Your task to perform on an android device: check storage Image 0: 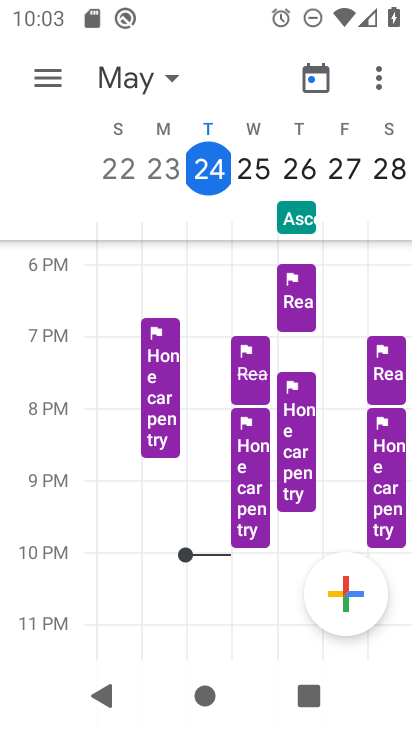
Step 0: press home button
Your task to perform on an android device: check storage Image 1: 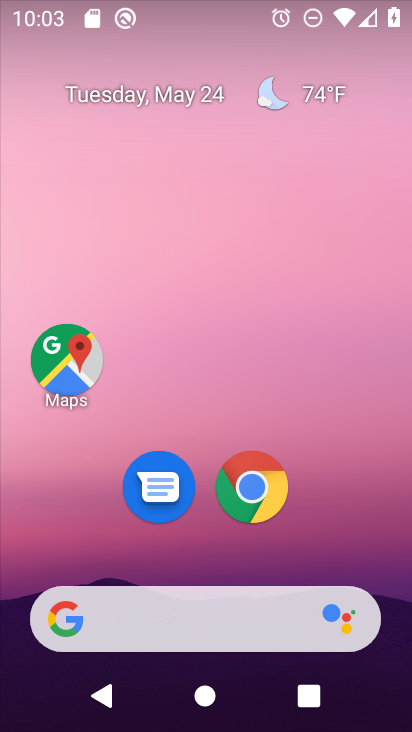
Step 1: drag from (380, 599) to (403, 17)
Your task to perform on an android device: check storage Image 2: 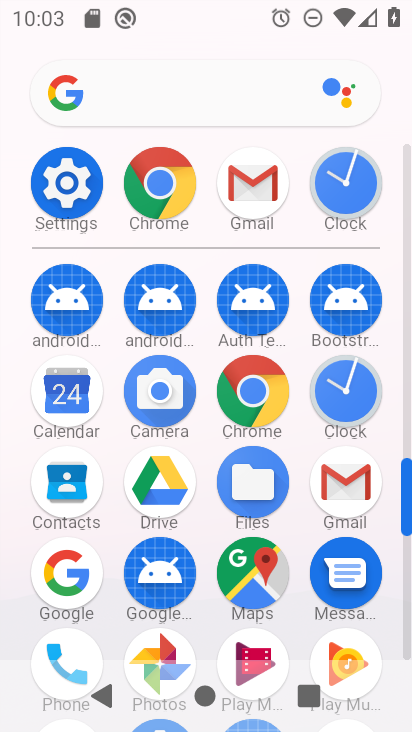
Step 2: click (61, 195)
Your task to perform on an android device: check storage Image 3: 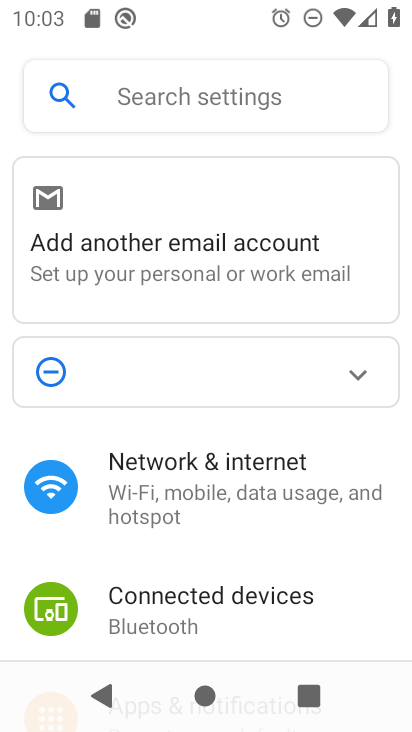
Step 3: drag from (187, 568) to (206, 82)
Your task to perform on an android device: check storage Image 4: 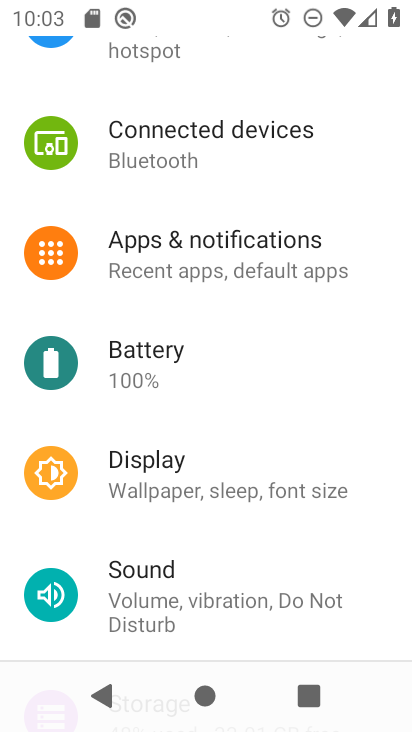
Step 4: drag from (188, 562) to (172, 144)
Your task to perform on an android device: check storage Image 5: 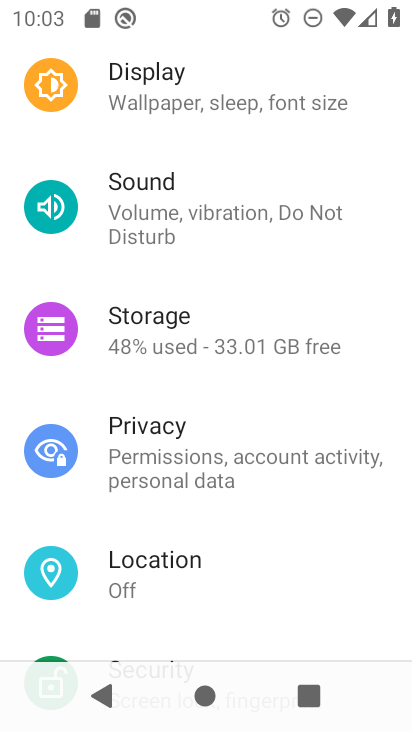
Step 5: click (129, 330)
Your task to perform on an android device: check storage Image 6: 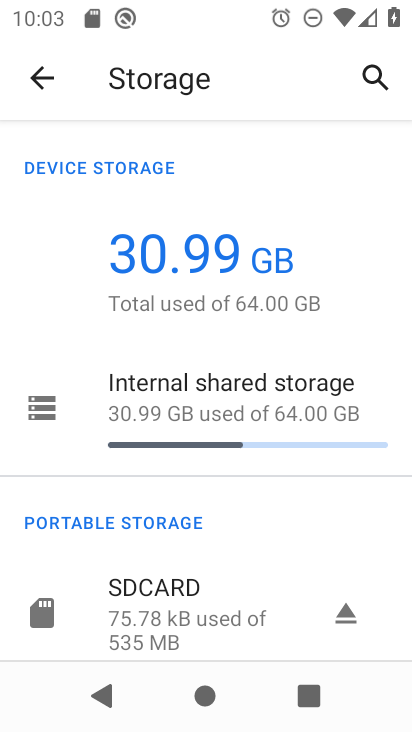
Step 6: click (176, 373)
Your task to perform on an android device: check storage Image 7: 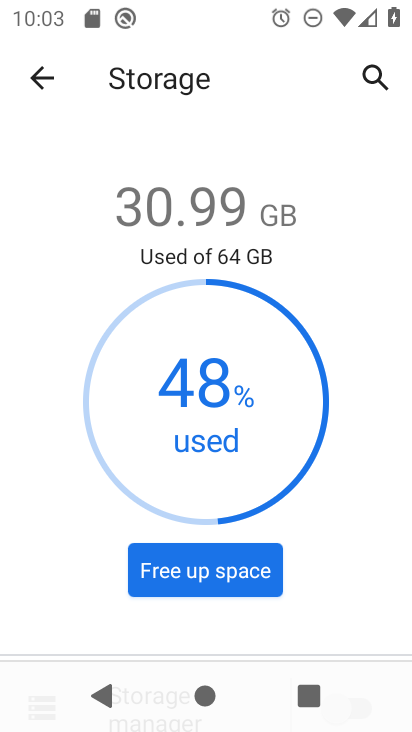
Step 7: task complete